Your task to perform on an android device: find snoozed emails in the gmail app Image 0: 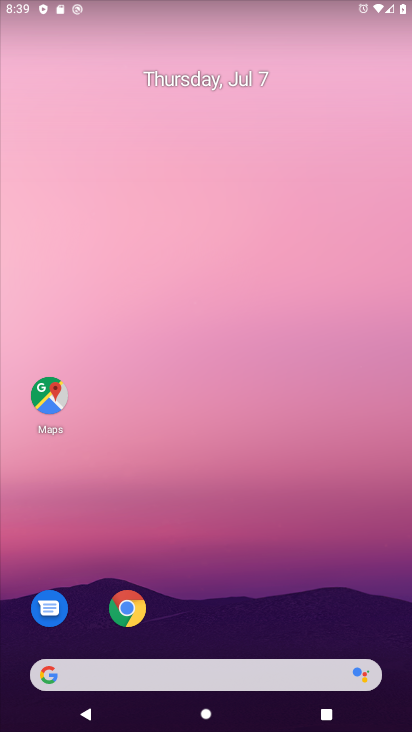
Step 0: drag from (150, 656) to (155, 339)
Your task to perform on an android device: find snoozed emails in the gmail app Image 1: 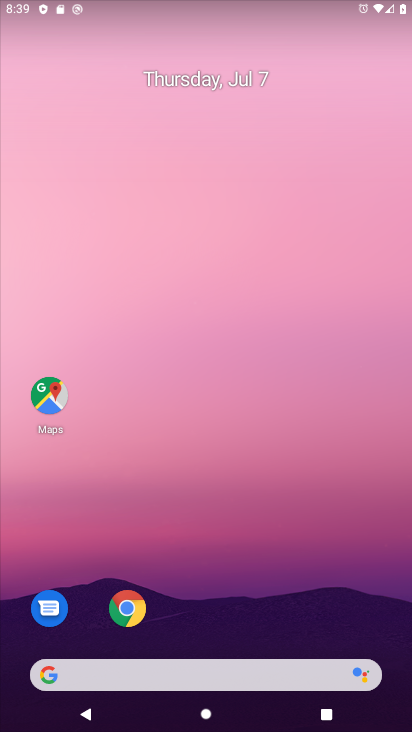
Step 1: drag from (186, 669) to (190, 279)
Your task to perform on an android device: find snoozed emails in the gmail app Image 2: 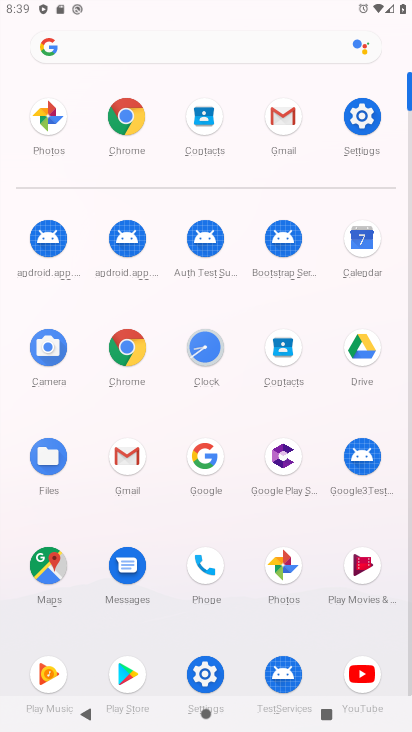
Step 2: click (287, 117)
Your task to perform on an android device: find snoozed emails in the gmail app Image 3: 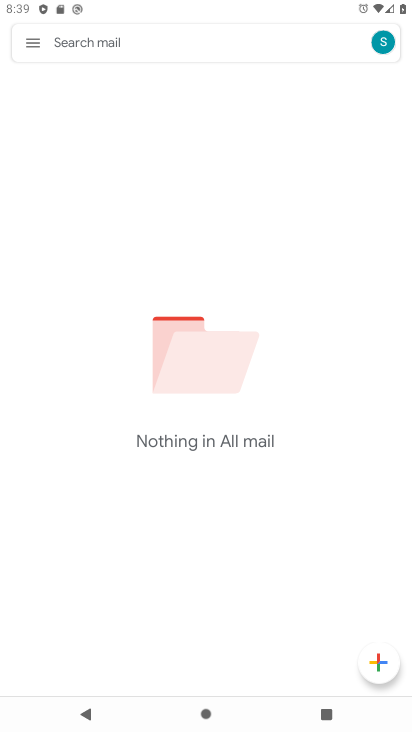
Step 3: click (33, 43)
Your task to perform on an android device: find snoozed emails in the gmail app Image 4: 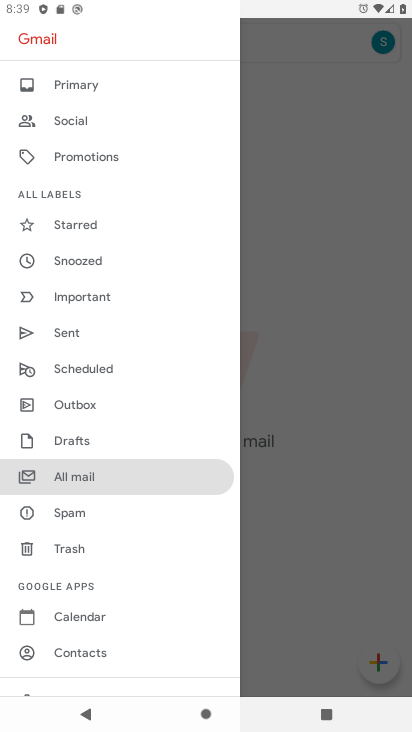
Step 4: click (92, 261)
Your task to perform on an android device: find snoozed emails in the gmail app Image 5: 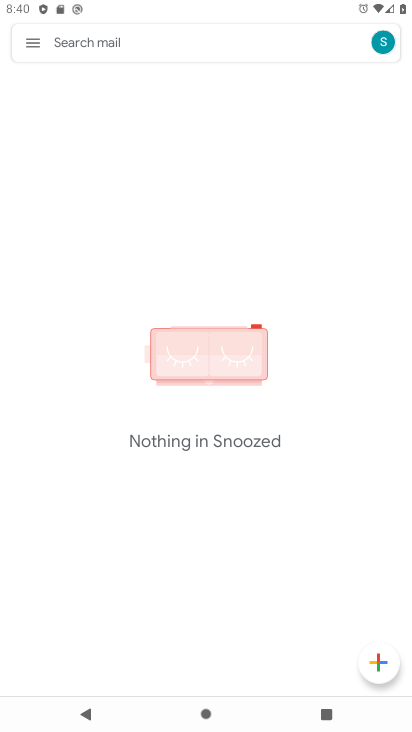
Step 5: task complete